Your task to perform on an android device: What is the recent news? Image 0: 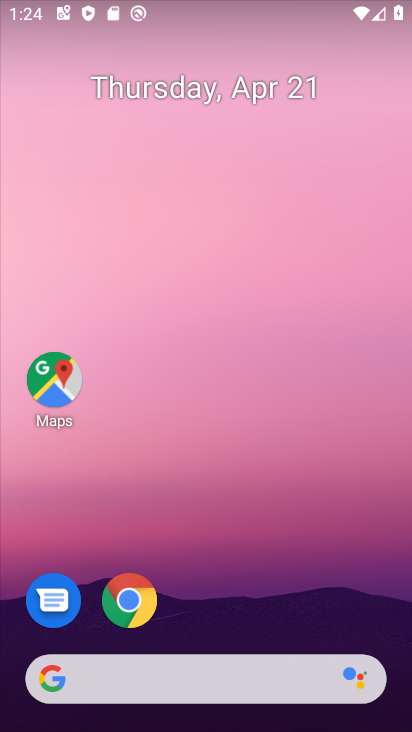
Step 0: click (261, 124)
Your task to perform on an android device: What is the recent news? Image 1: 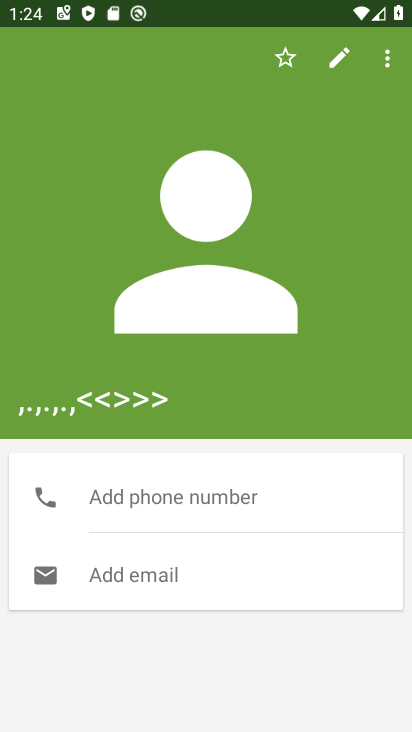
Step 1: press home button
Your task to perform on an android device: What is the recent news? Image 2: 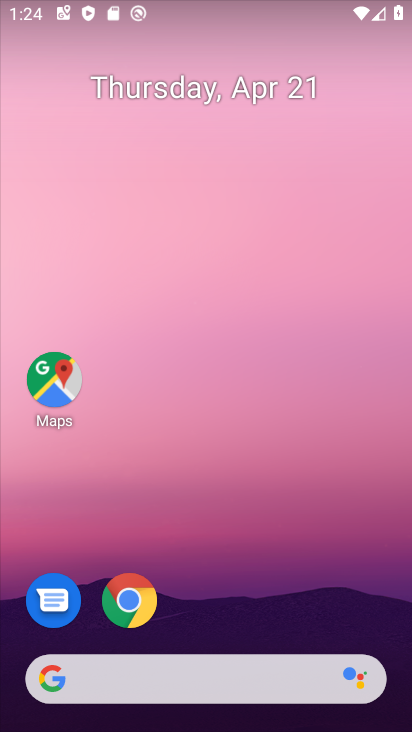
Step 2: drag from (80, 497) to (300, 504)
Your task to perform on an android device: What is the recent news? Image 3: 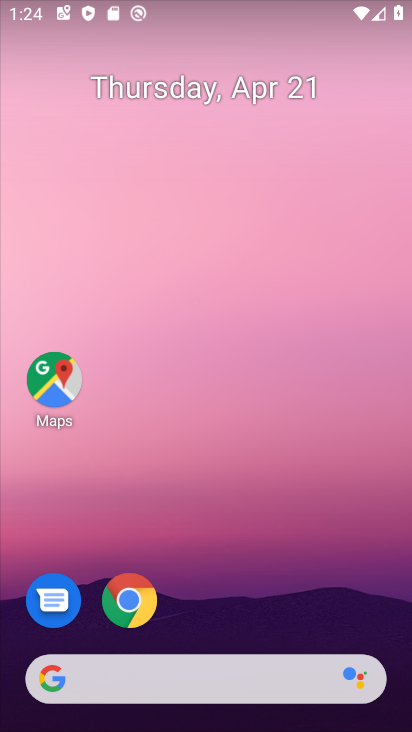
Step 3: drag from (27, 479) to (400, 544)
Your task to perform on an android device: What is the recent news? Image 4: 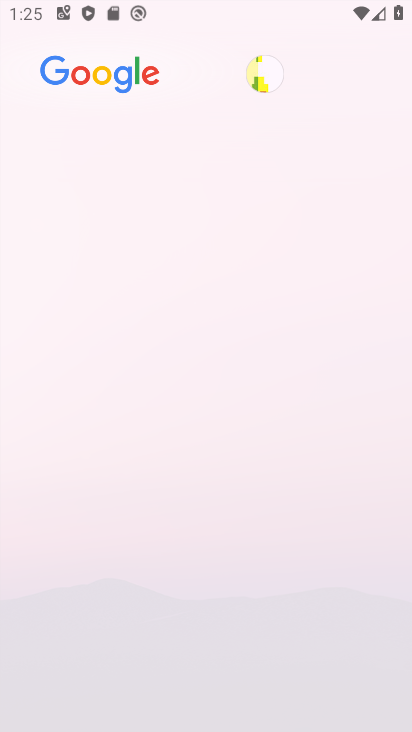
Step 4: click (387, 574)
Your task to perform on an android device: What is the recent news? Image 5: 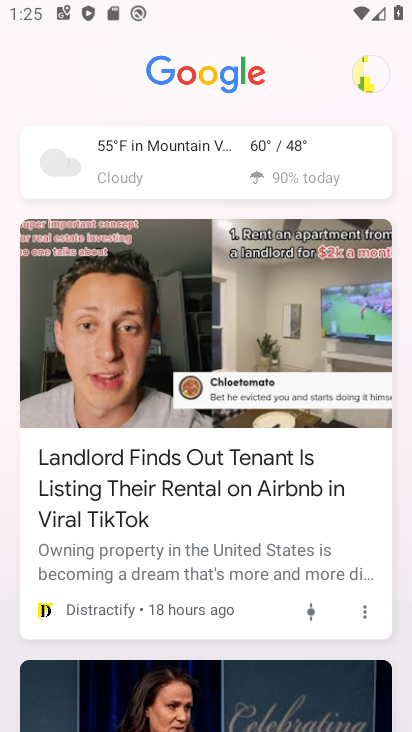
Step 5: task complete